Your task to perform on an android device: manage bookmarks in the chrome app Image 0: 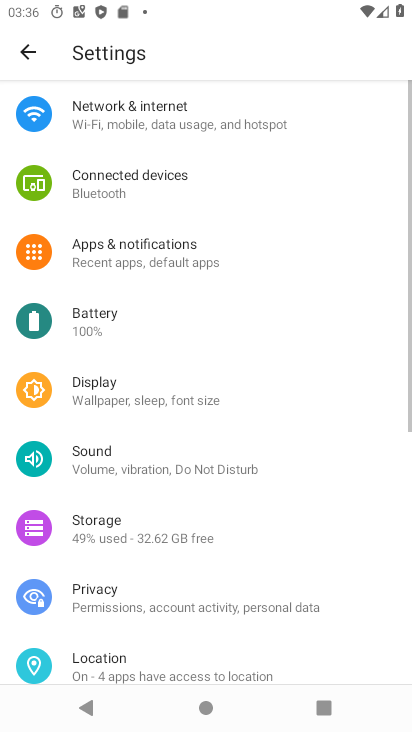
Step 0: press home button
Your task to perform on an android device: manage bookmarks in the chrome app Image 1: 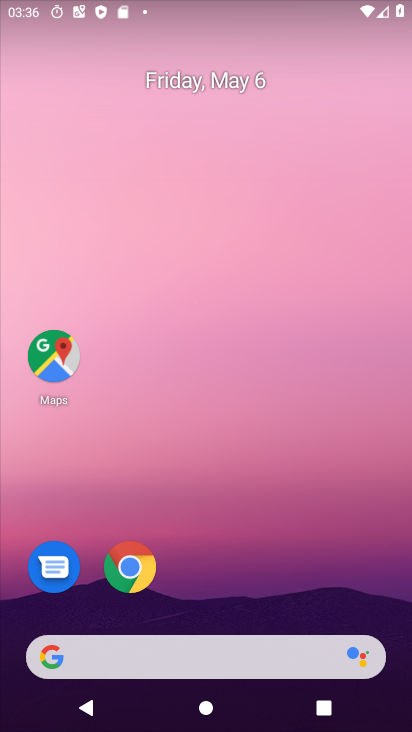
Step 1: click (121, 568)
Your task to perform on an android device: manage bookmarks in the chrome app Image 2: 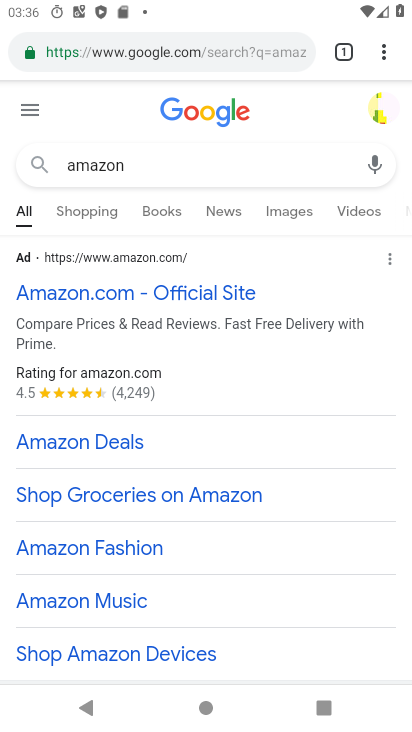
Step 2: click (383, 46)
Your task to perform on an android device: manage bookmarks in the chrome app Image 3: 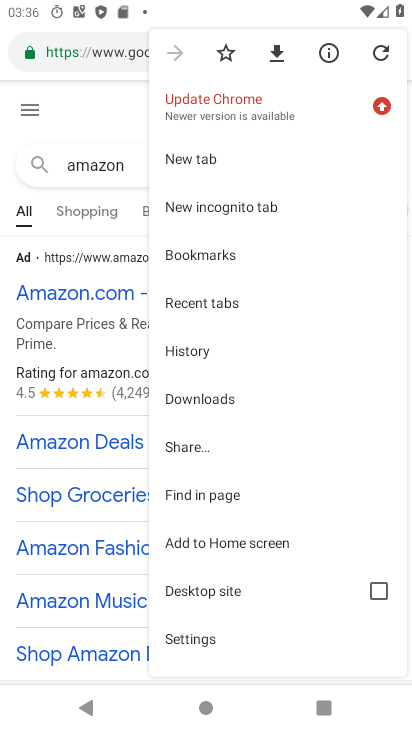
Step 3: click (219, 259)
Your task to perform on an android device: manage bookmarks in the chrome app Image 4: 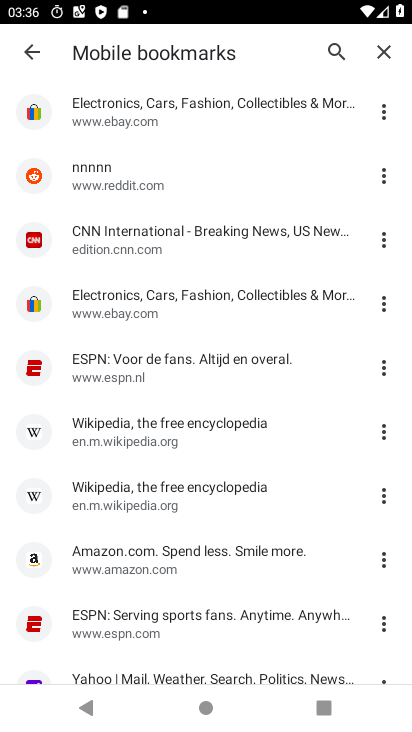
Step 4: task complete